Your task to perform on an android device: delete a single message in the gmail app Image 0: 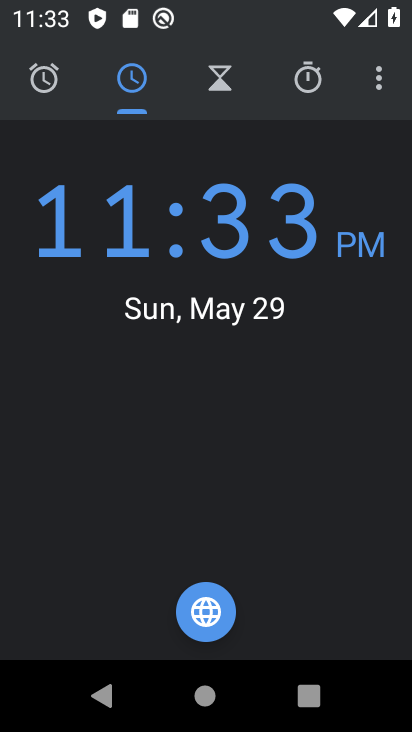
Step 0: press home button
Your task to perform on an android device: delete a single message in the gmail app Image 1: 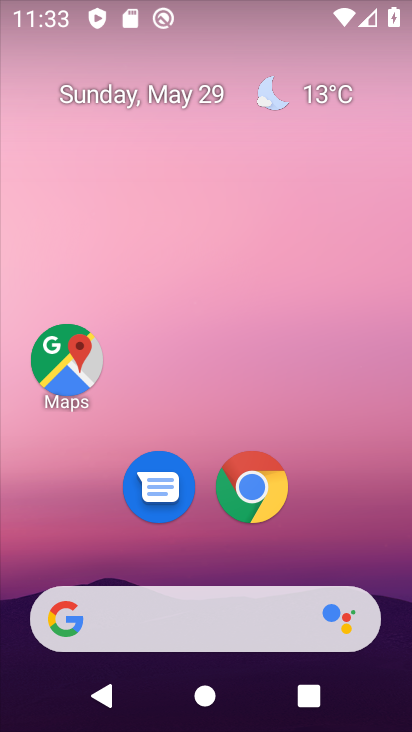
Step 1: drag from (367, 496) to (329, 33)
Your task to perform on an android device: delete a single message in the gmail app Image 2: 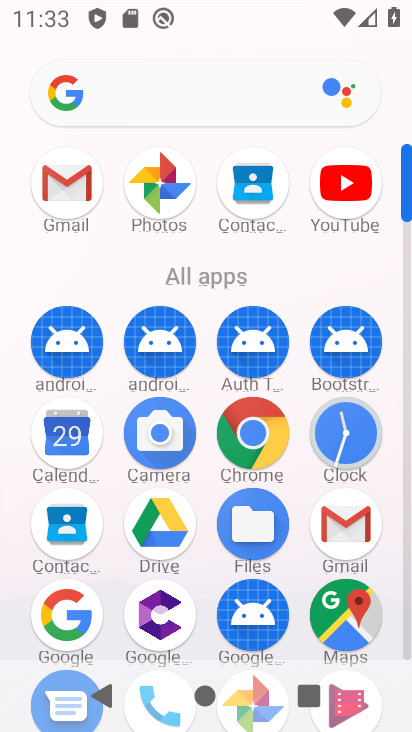
Step 2: click (356, 529)
Your task to perform on an android device: delete a single message in the gmail app Image 3: 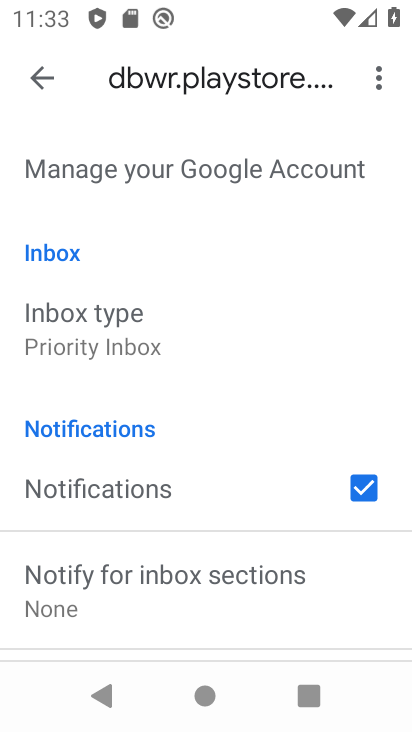
Step 3: click (56, 70)
Your task to perform on an android device: delete a single message in the gmail app Image 4: 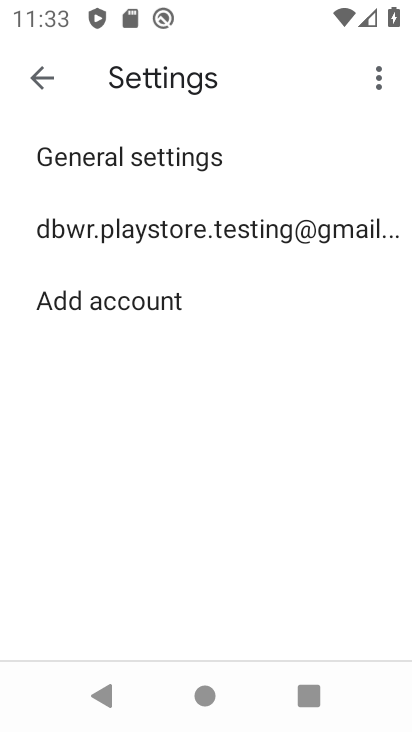
Step 4: click (56, 70)
Your task to perform on an android device: delete a single message in the gmail app Image 5: 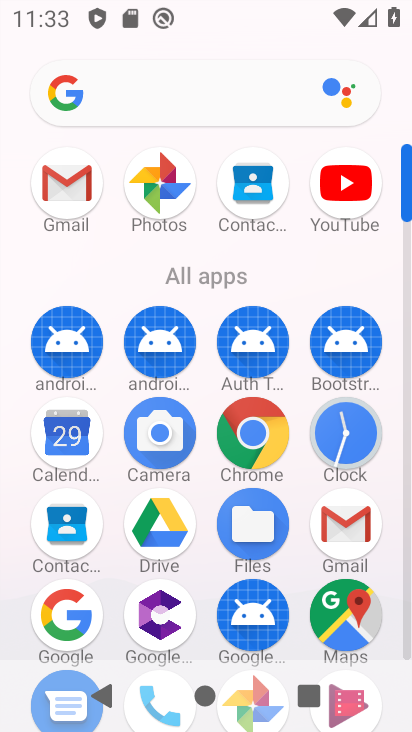
Step 5: click (364, 496)
Your task to perform on an android device: delete a single message in the gmail app Image 6: 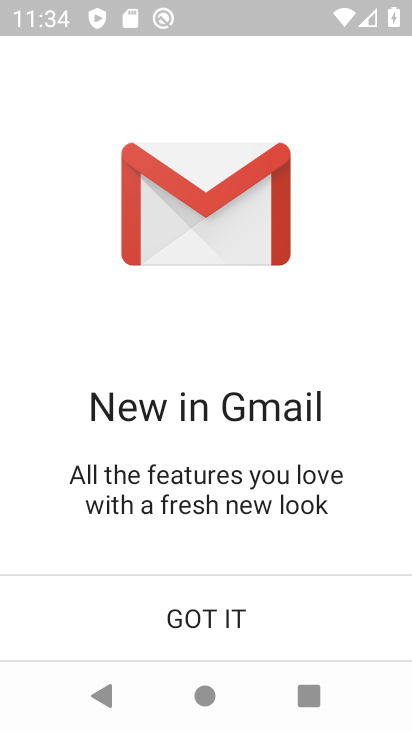
Step 6: click (273, 604)
Your task to perform on an android device: delete a single message in the gmail app Image 7: 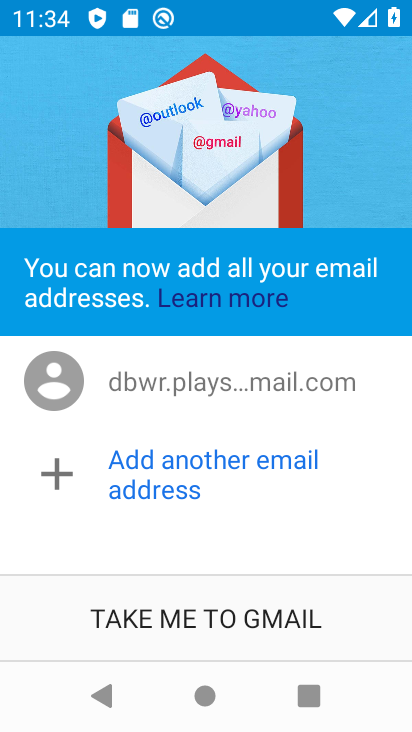
Step 7: click (283, 628)
Your task to perform on an android device: delete a single message in the gmail app Image 8: 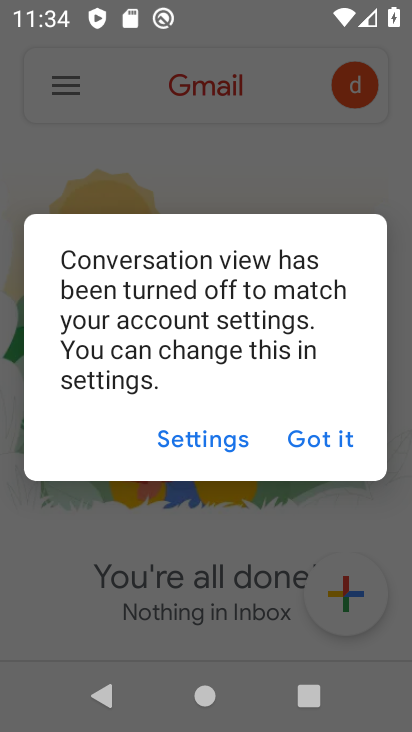
Step 8: click (314, 449)
Your task to perform on an android device: delete a single message in the gmail app Image 9: 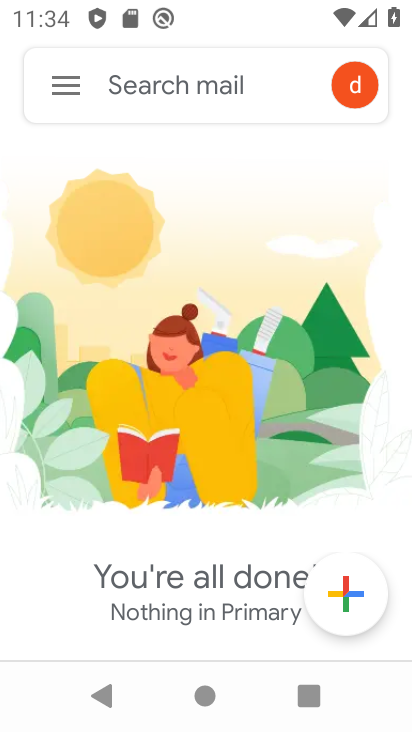
Step 9: click (43, 95)
Your task to perform on an android device: delete a single message in the gmail app Image 10: 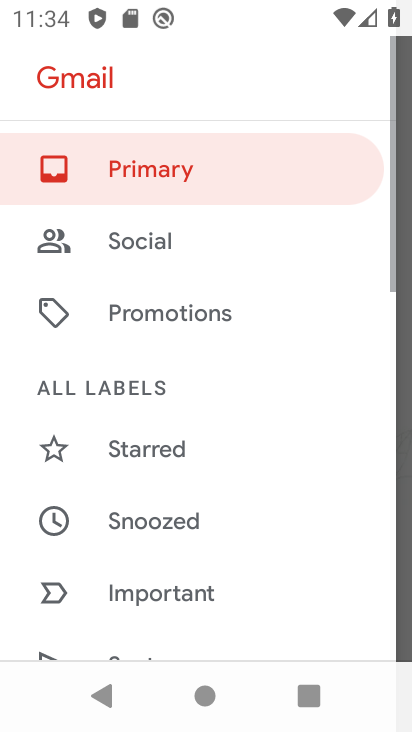
Step 10: drag from (180, 535) to (165, 224)
Your task to perform on an android device: delete a single message in the gmail app Image 11: 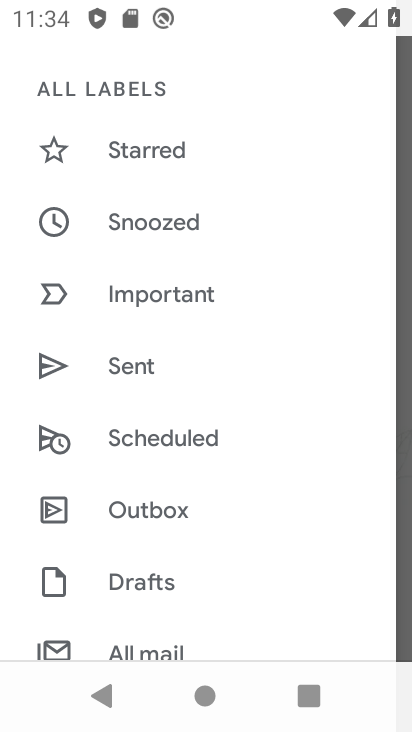
Step 11: click (166, 645)
Your task to perform on an android device: delete a single message in the gmail app Image 12: 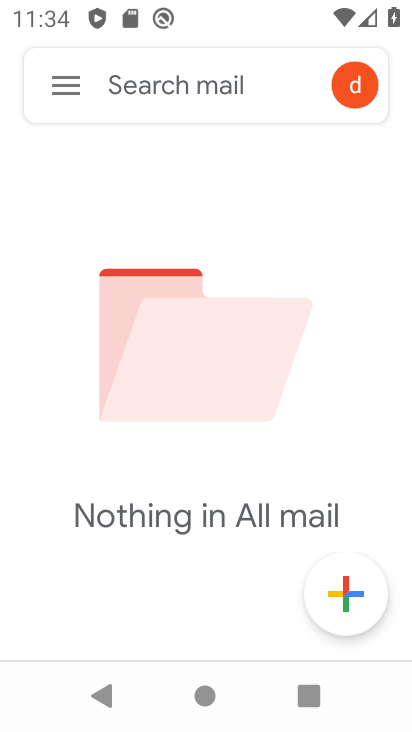
Step 12: task complete